Your task to perform on an android device: see tabs open on other devices in the chrome app Image 0: 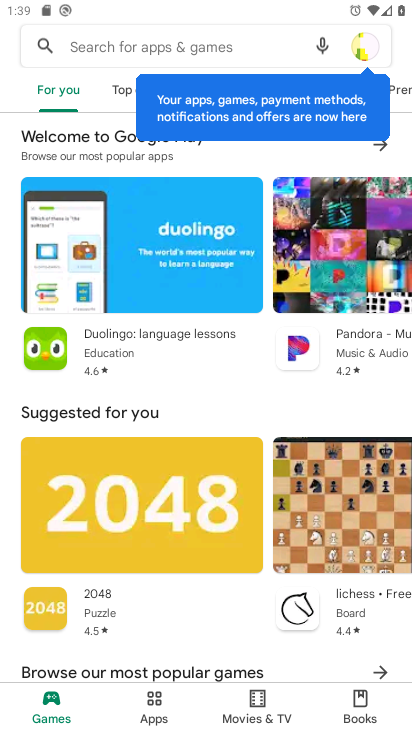
Step 0: press home button
Your task to perform on an android device: see tabs open on other devices in the chrome app Image 1: 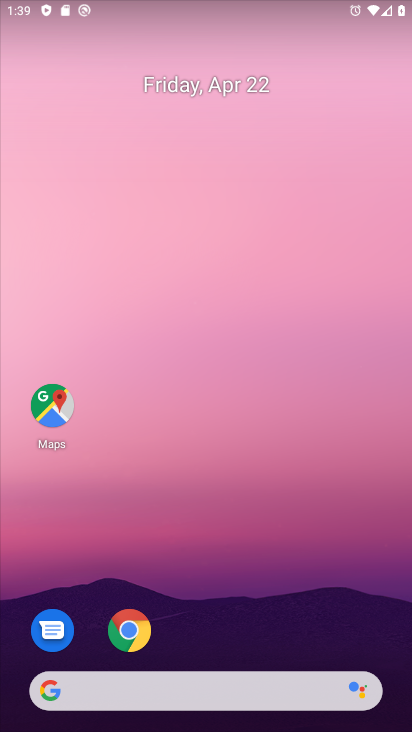
Step 1: drag from (319, 586) to (348, 143)
Your task to perform on an android device: see tabs open on other devices in the chrome app Image 2: 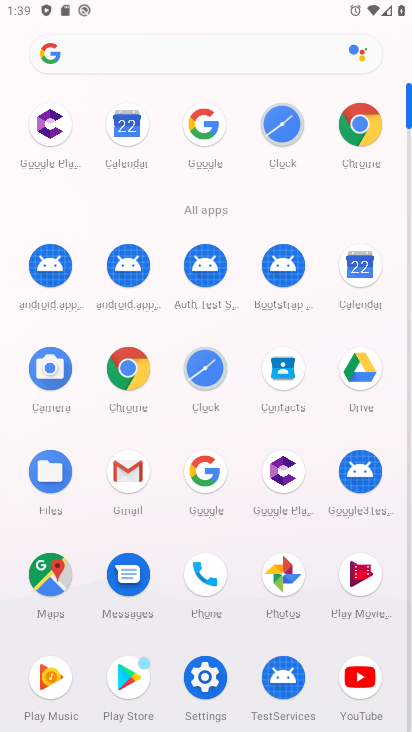
Step 2: click (133, 380)
Your task to perform on an android device: see tabs open on other devices in the chrome app Image 3: 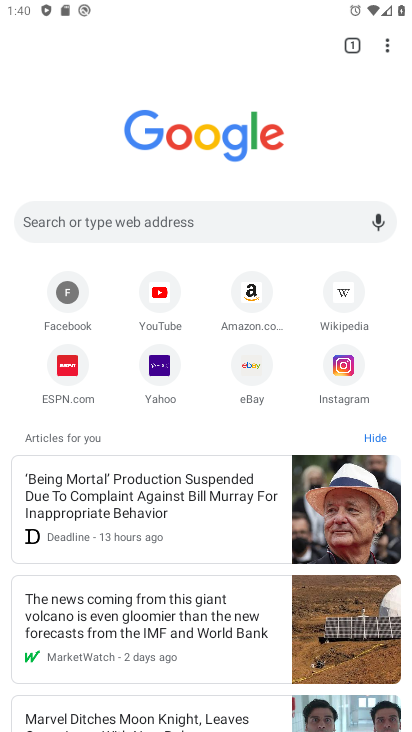
Step 3: click (352, 53)
Your task to perform on an android device: see tabs open on other devices in the chrome app Image 4: 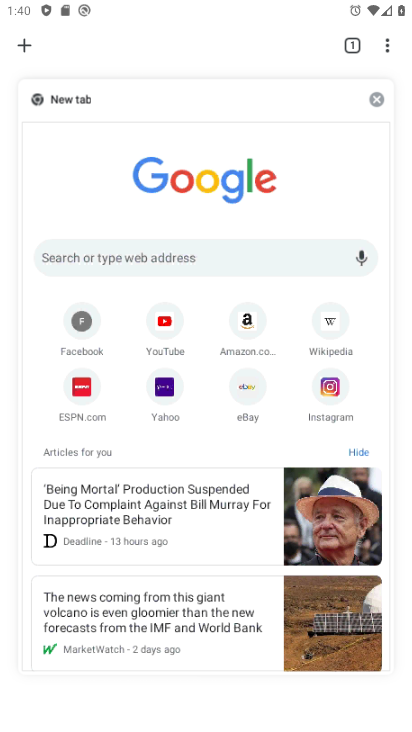
Step 4: task complete